Your task to perform on an android device: Is it going to rain this weekend? Image 0: 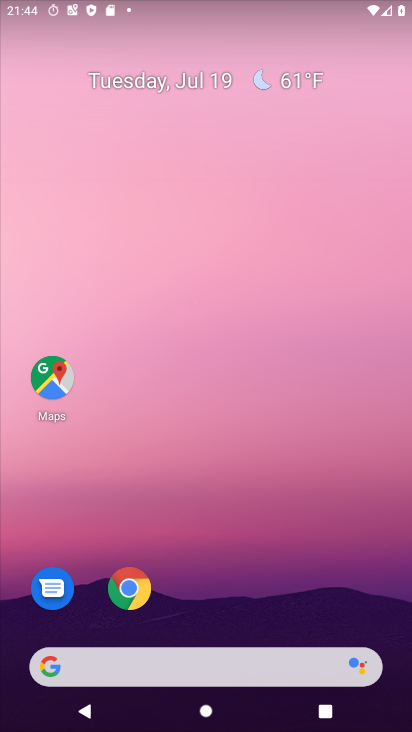
Step 0: press home button
Your task to perform on an android device: Is it going to rain this weekend? Image 1: 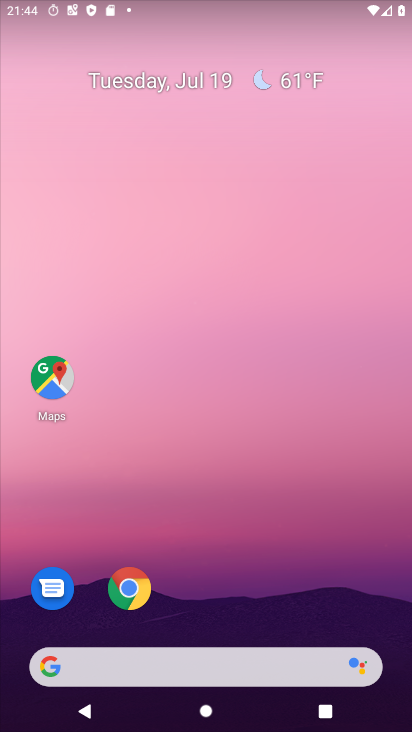
Step 1: drag from (210, 619) to (223, 521)
Your task to perform on an android device: Is it going to rain this weekend? Image 2: 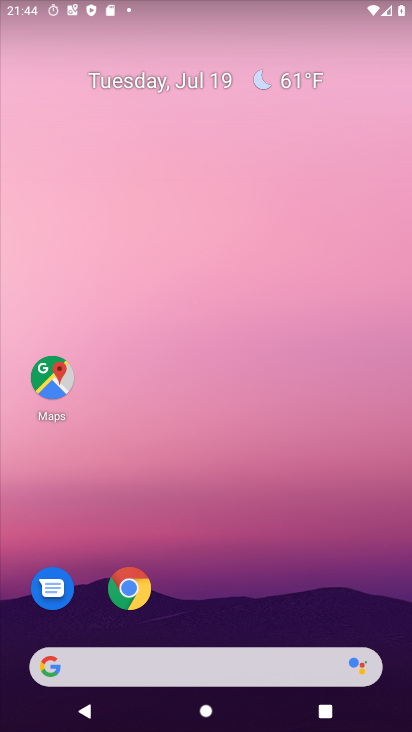
Step 2: click (288, 73)
Your task to perform on an android device: Is it going to rain this weekend? Image 3: 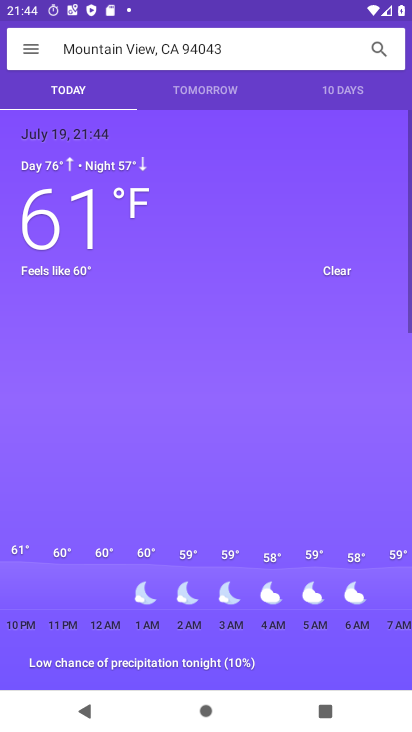
Step 3: click (351, 92)
Your task to perform on an android device: Is it going to rain this weekend? Image 4: 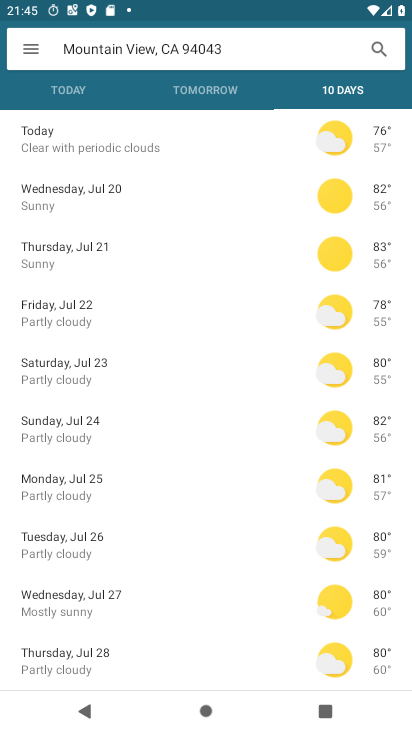
Step 4: task complete